Your task to perform on an android device: Search for a new highlighter Image 0: 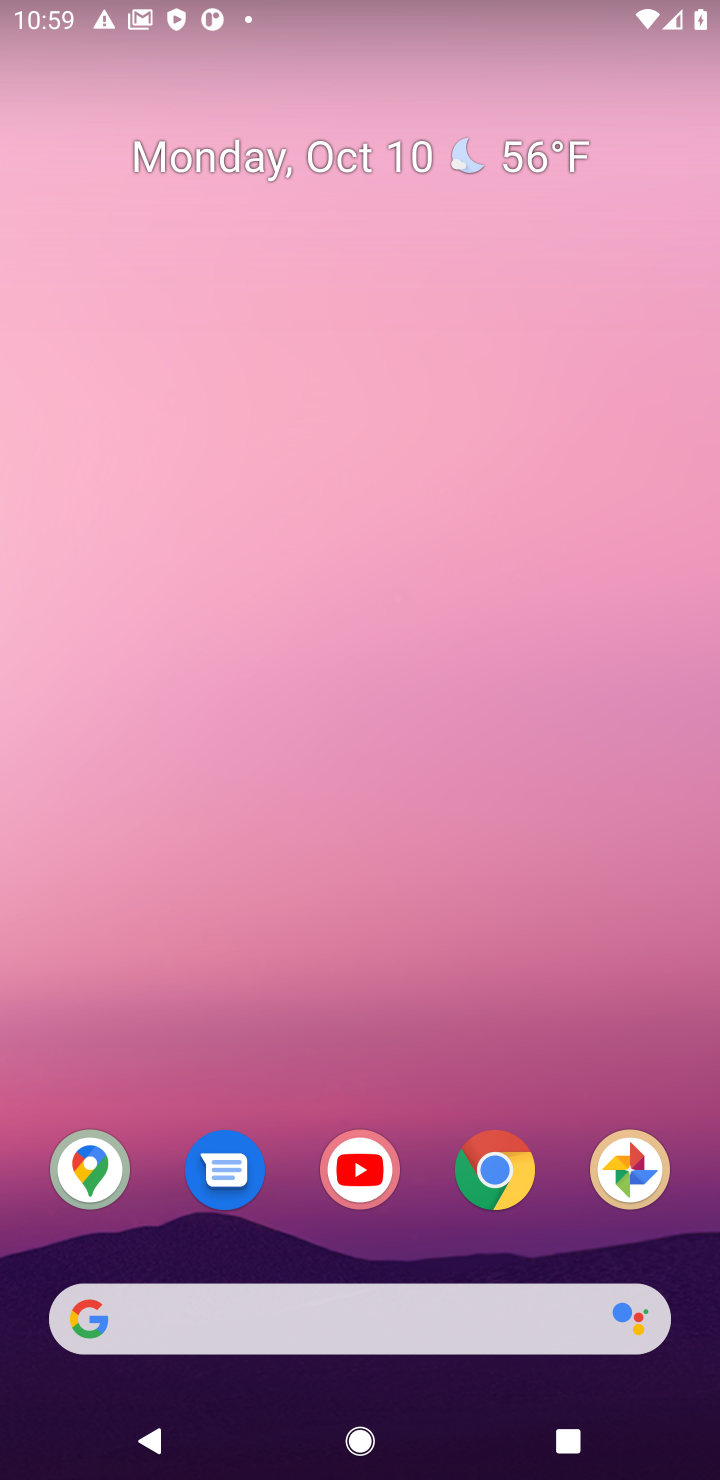
Step 0: drag from (490, 1303) to (488, 601)
Your task to perform on an android device: Search for a new highlighter Image 1: 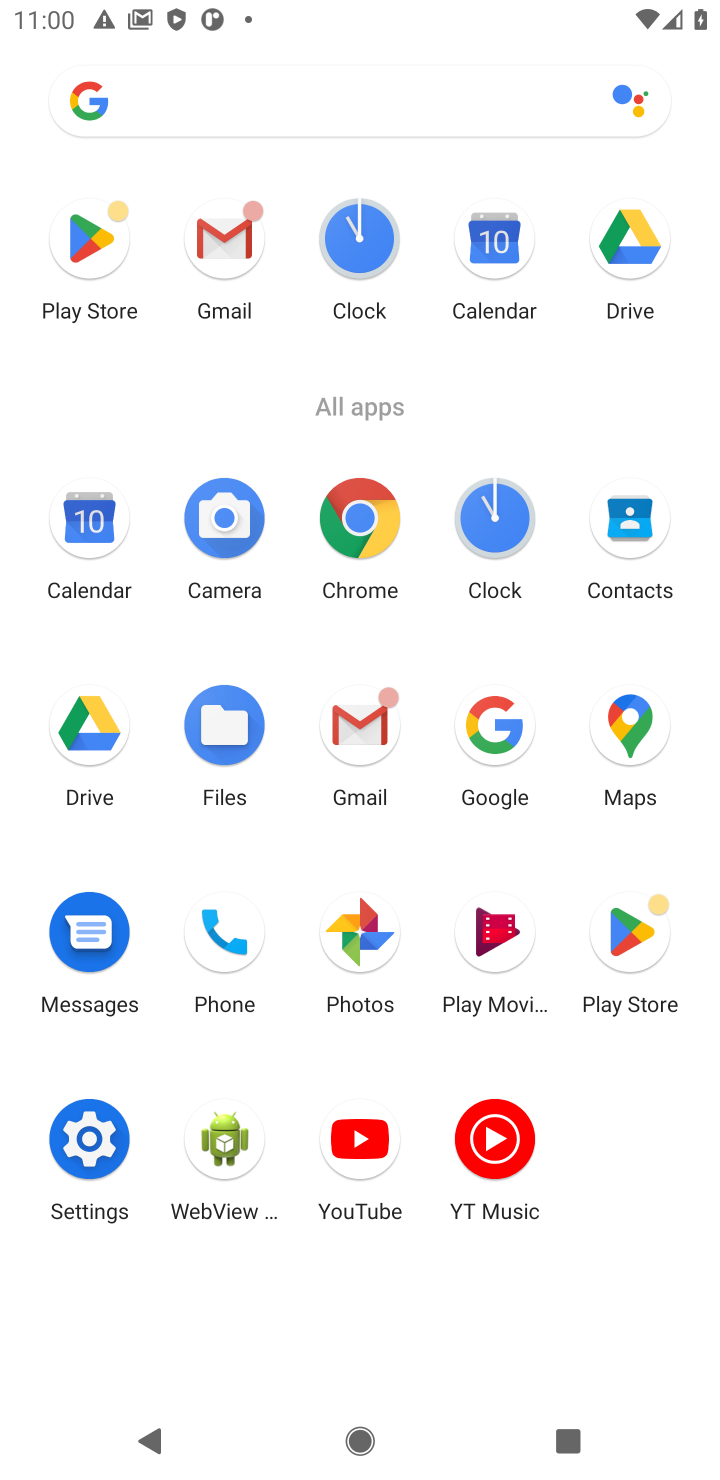
Step 1: click (525, 794)
Your task to perform on an android device: Search for a new highlighter Image 2: 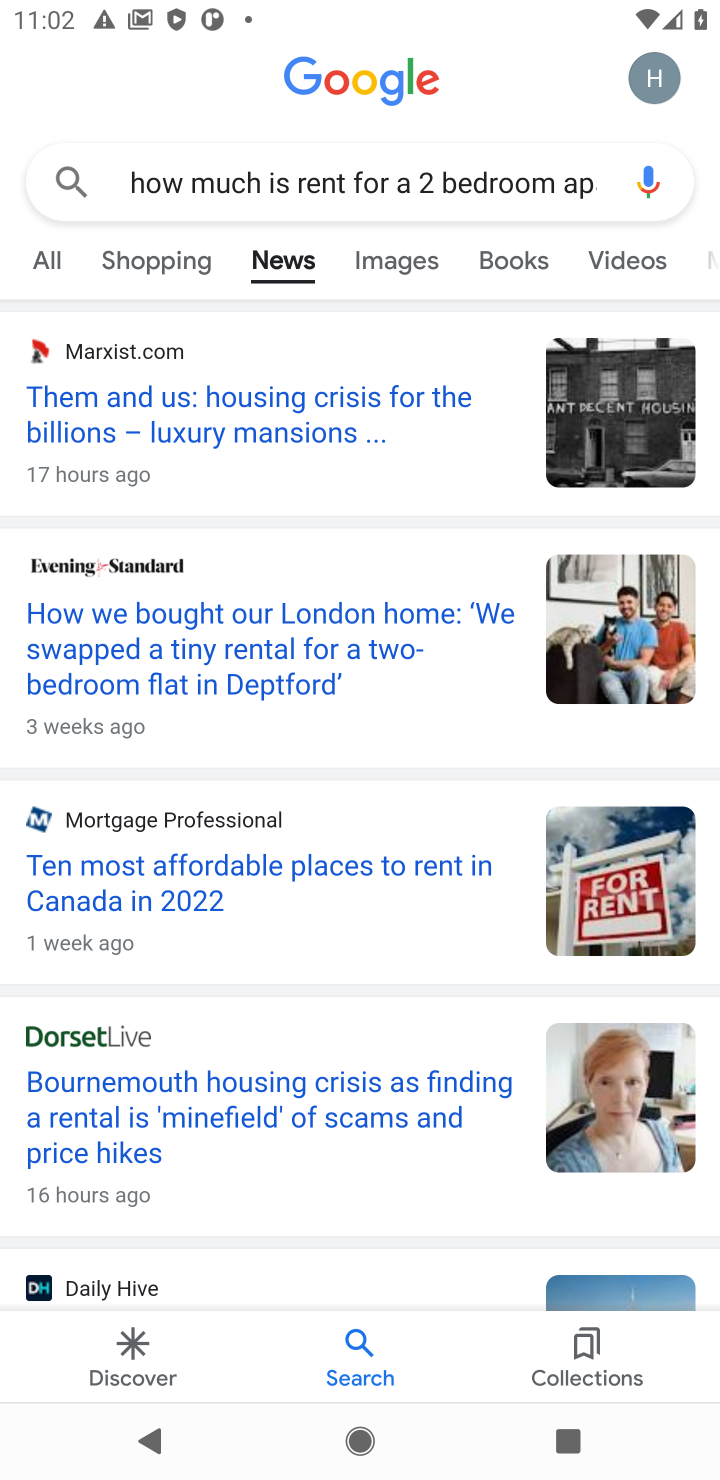
Step 2: click (518, 185)
Your task to perform on an android device: Search for a new highlighter Image 3: 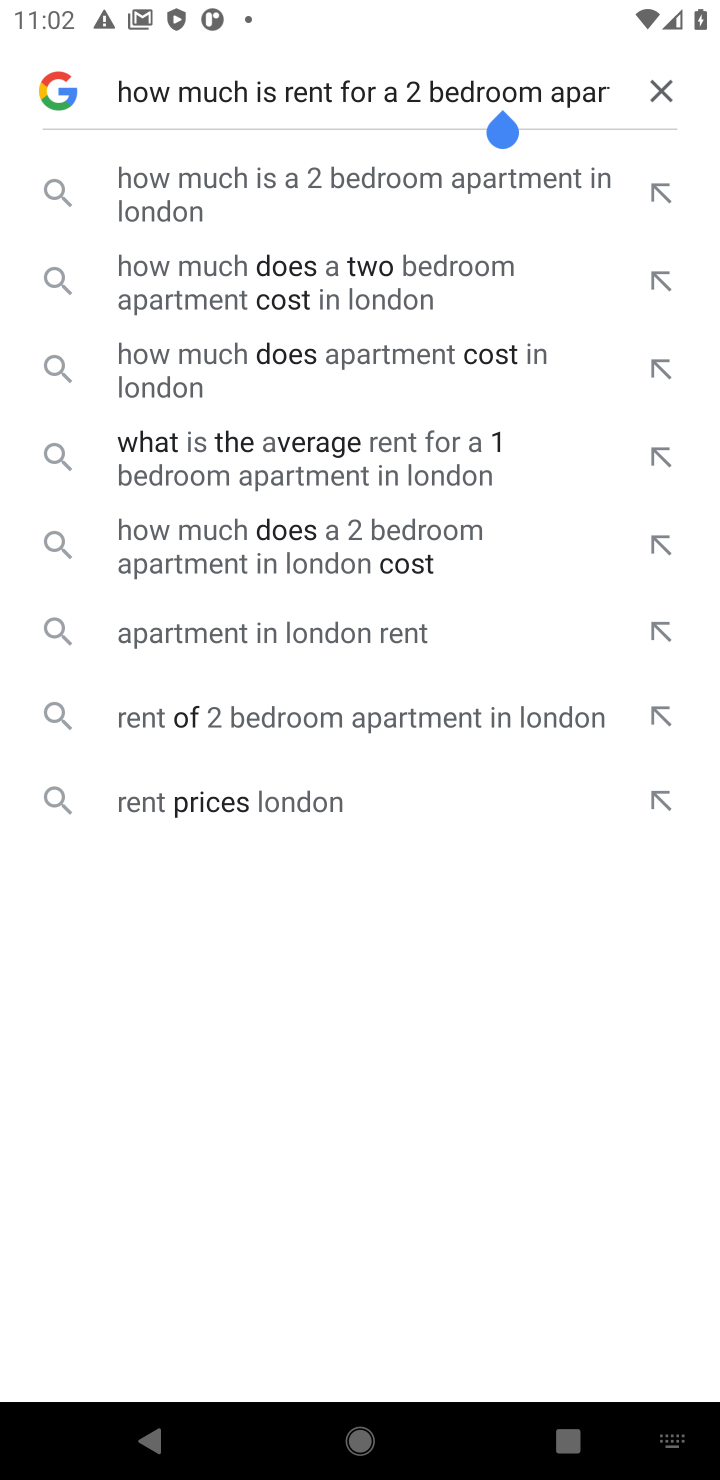
Step 3: click (654, 93)
Your task to perform on an android device: Search for a new highlighter Image 4: 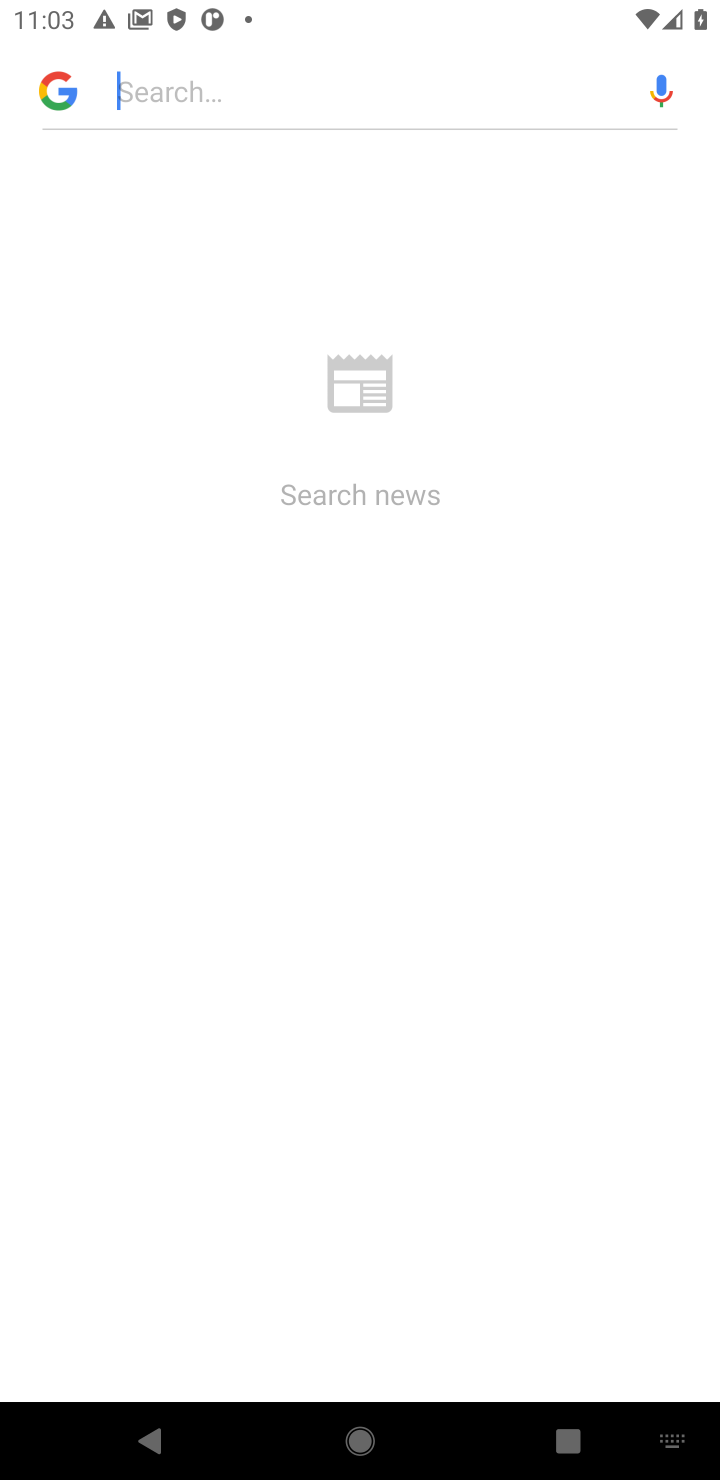
Step 4: type "new highlighter"
Your task to perform on an android device: Search for a new highlighter Image 5: 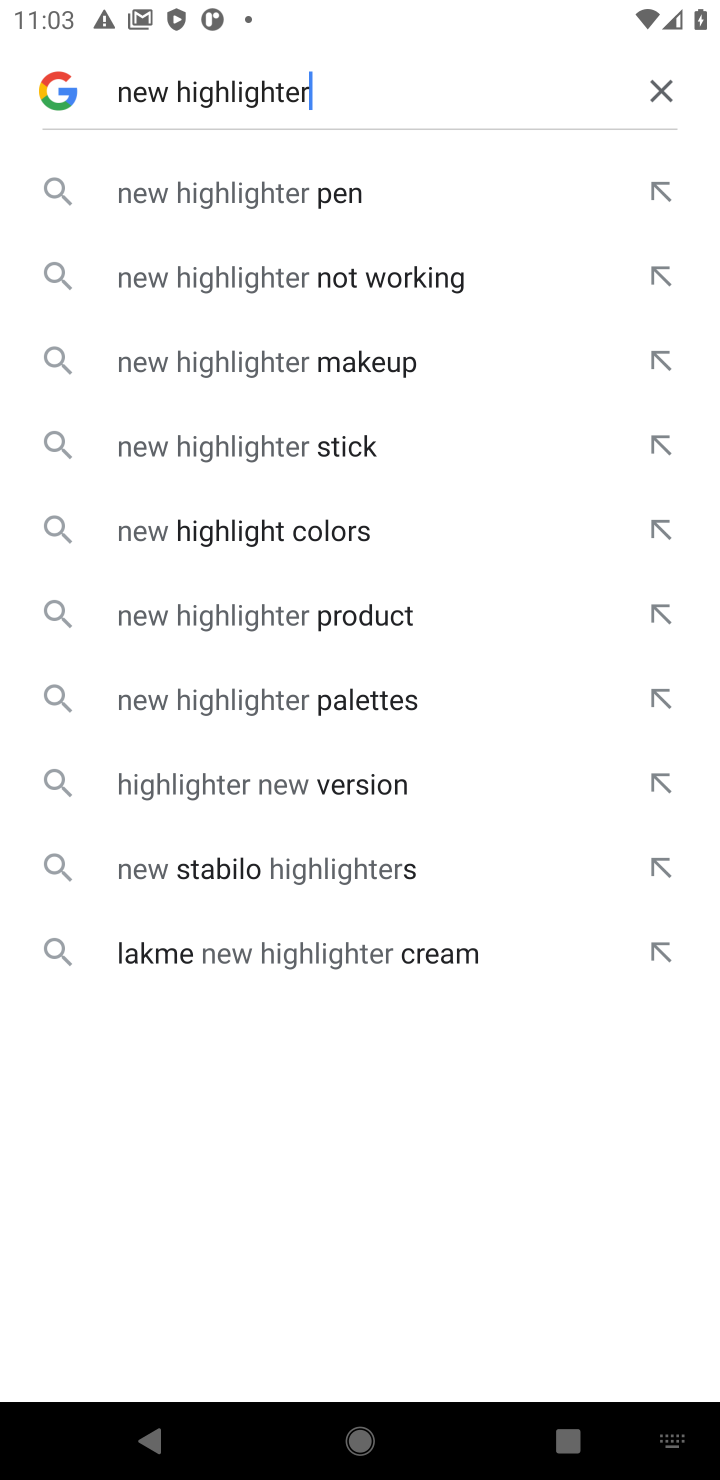
Step 5: click (354, 197)
Your task to perform on an android device: Search for a new highlighter Image 6: 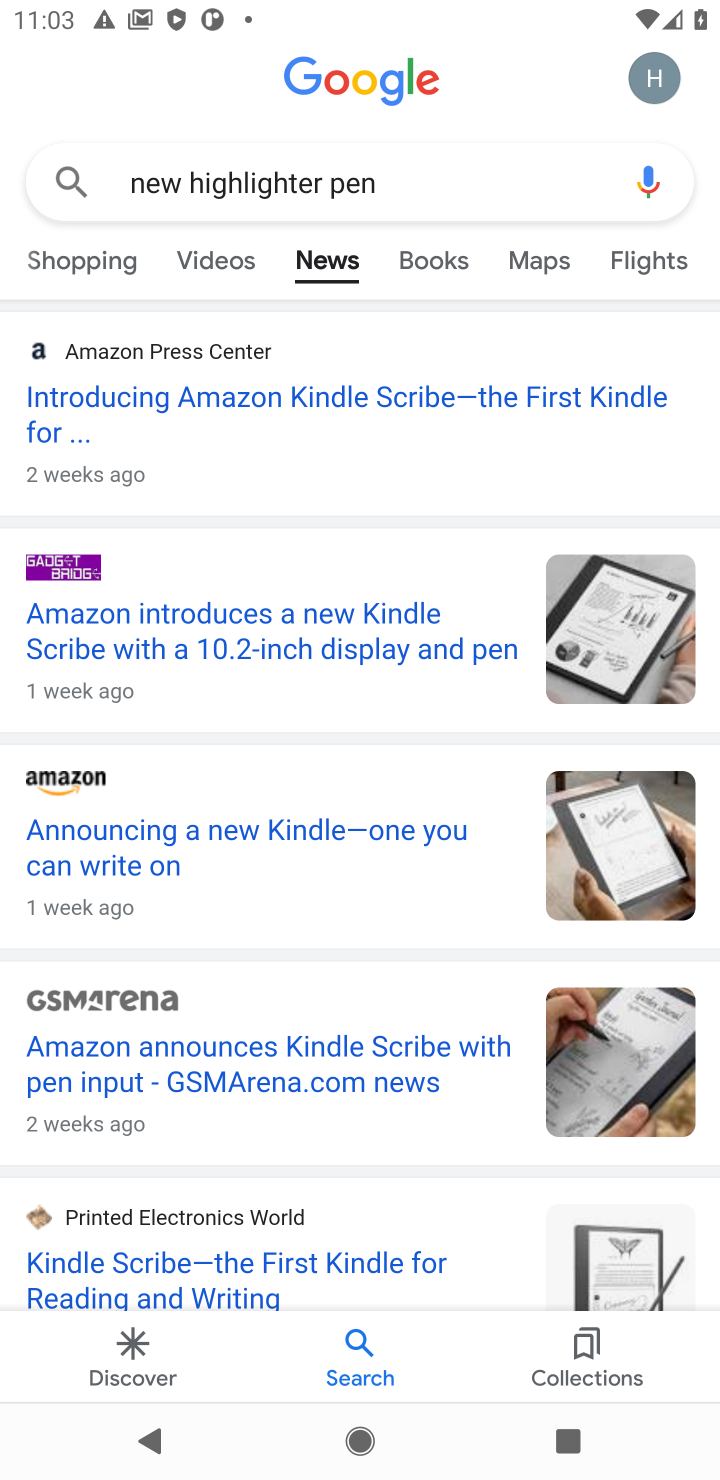
Step 6: task complete